Your task to perform on an android device: Go to Yahoo.com Image 0: 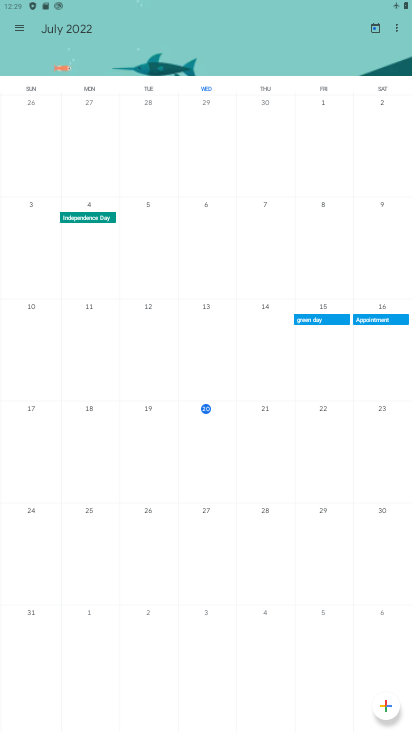
Step 0: press home button
Your task to perform on an android device: Go to Yahoo.com Image 1: 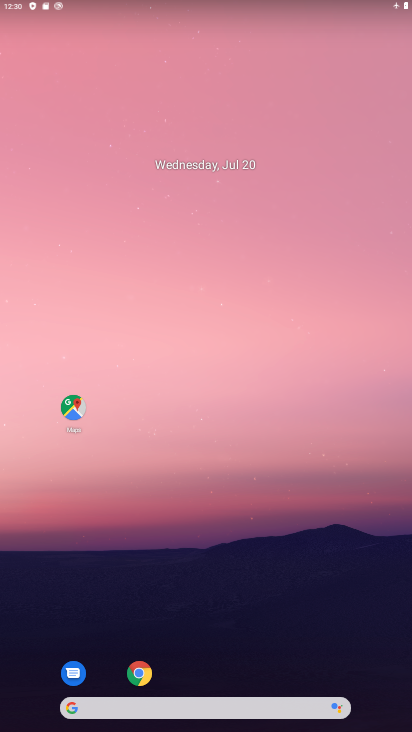
Step 1: click (143, 675)
Your task to perform on an android device: Go to Yahoo.com Image 2: 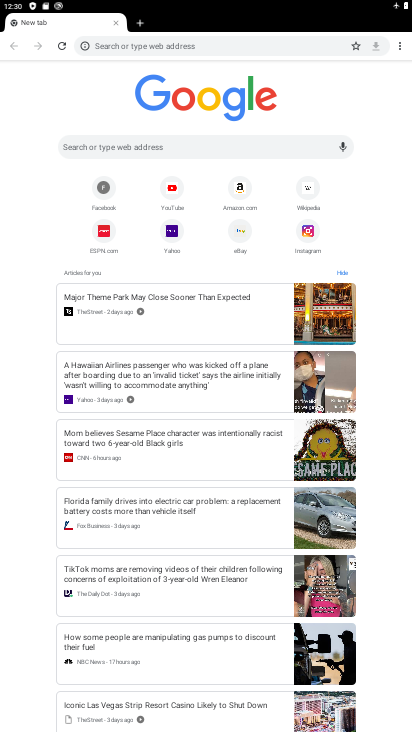
Step 2: click (172, 234)
Your task to perform on an android device: Go to Yahoo.com Image 3: 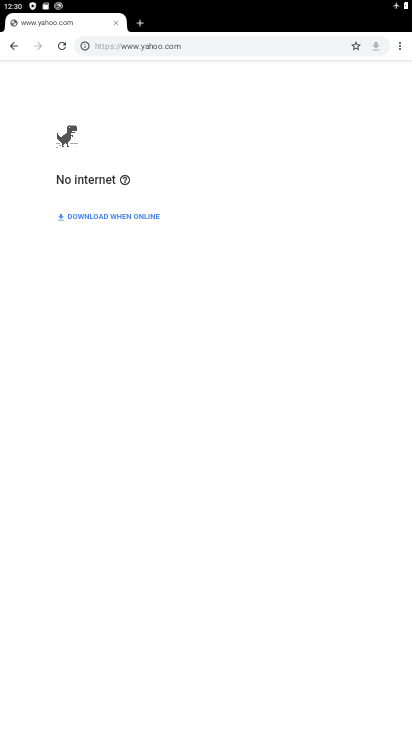
Step 3: drag from (288, 6) to (234, 507)
Your task to perform on an android device: Go to Yahoo.com Image 4: 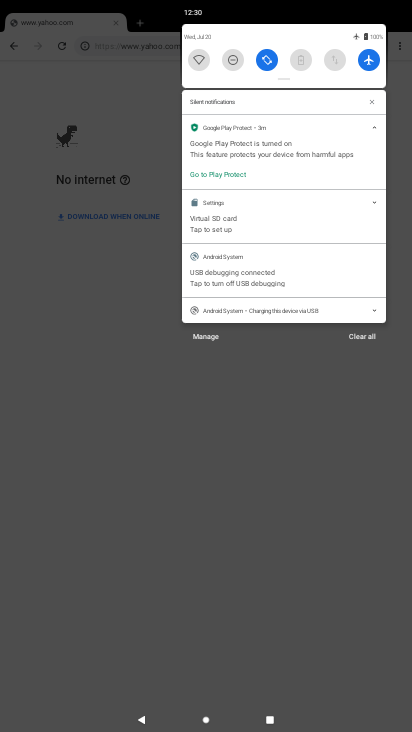
Step 4: click (365, 59)
Your task to perform on an android device: Go to Yahoo.com Image 5: 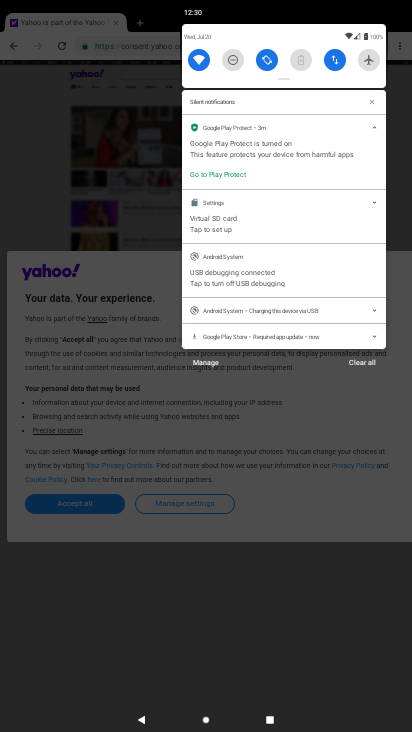
Step 5: task complete